Your task to perform on an android device: change the clock style Image 0: 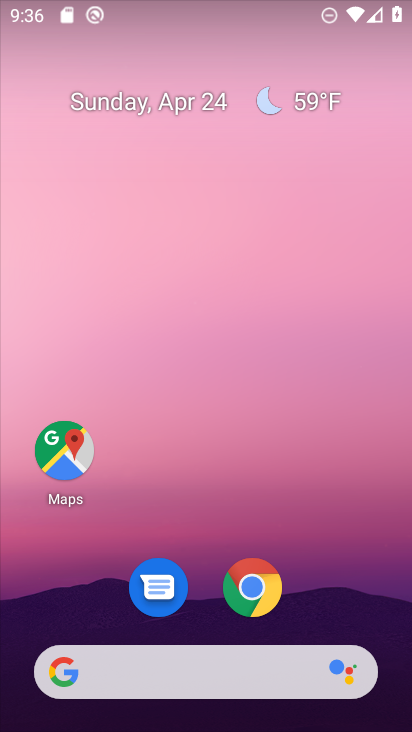
Step 0: drag from (235, 444) to (265, 34)
Your task to perform on an android device: change the clock style Image 1: 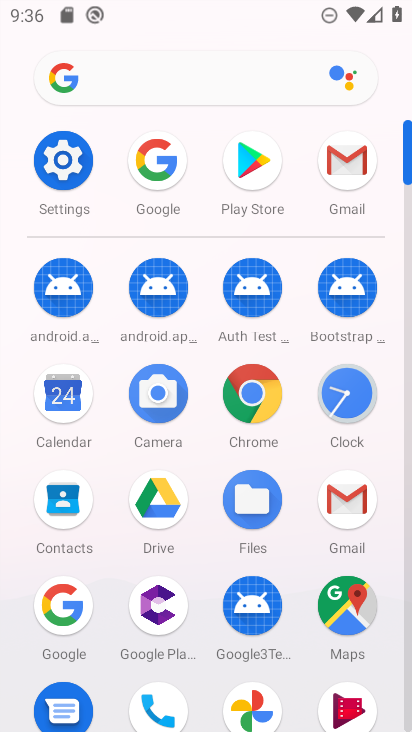
Step 1: click (348, 391)
Your task to perform on an android device: change the clock style Image 2: 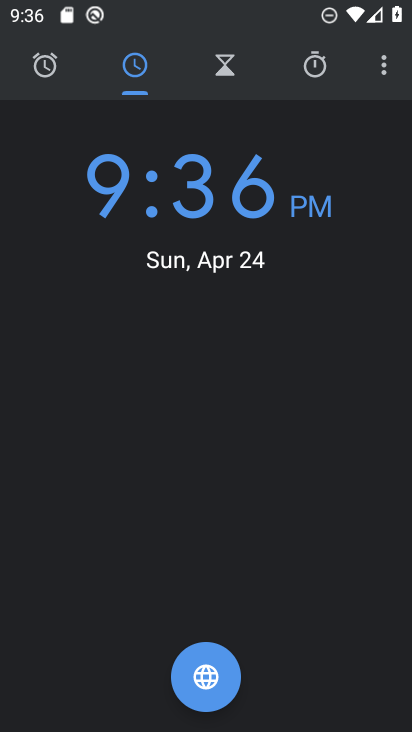
Step 2: click (385, 64)
Your task to perform on an android device: change the clock style Image 3: 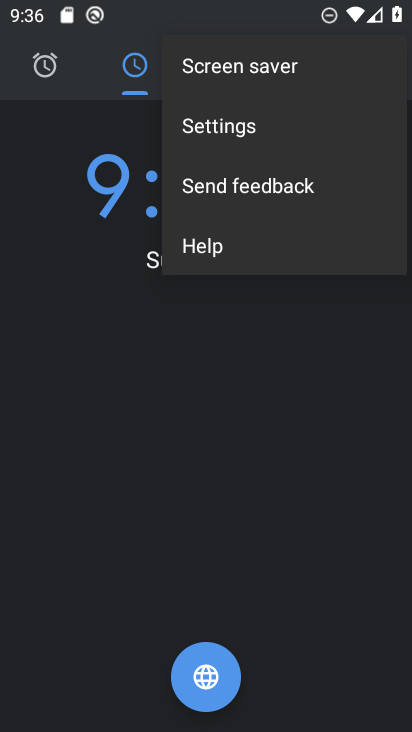
Step 3: click (248, 130)
Your task to perform on an android device: change the clock style Image 4: 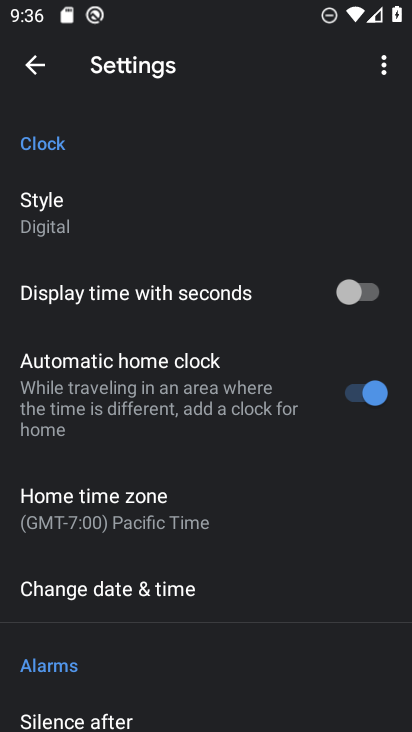
Step 4: click (51, 231)
Your task to perform on an android device: change the clock style Image 5: 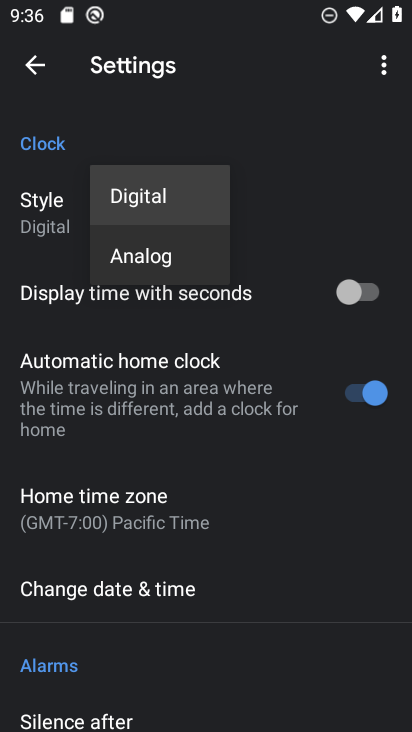
Step 5: click (131, 262)
Your task to perform on an android device: change the clock style Image 6: 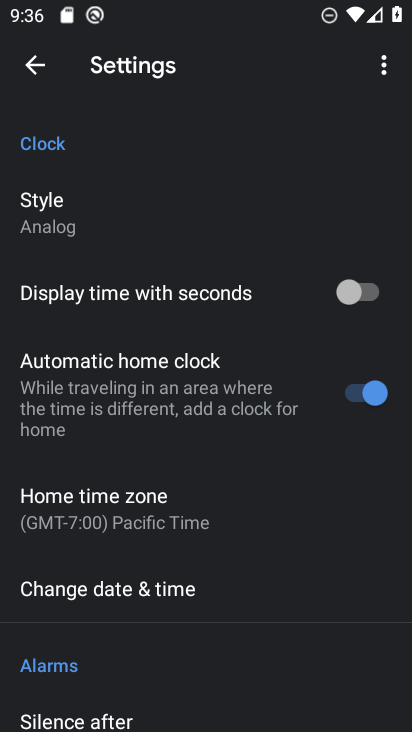
Step 6: task complete